Your task to perform on an android device: toggle airplane mode Image 0: 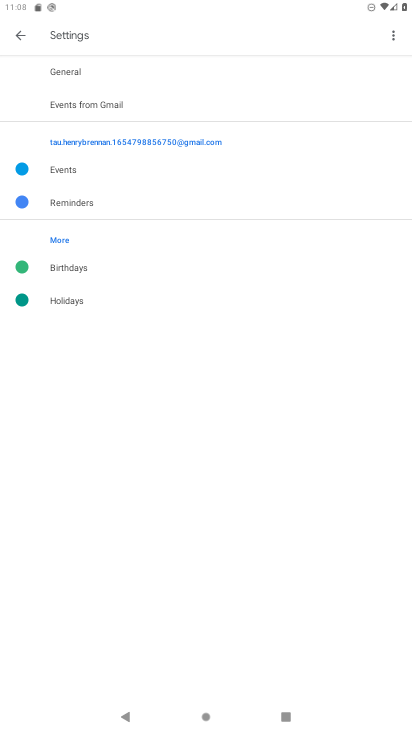
Step 0: press back button
Your task to perform on an android device: toggle airplane mode Image 1: 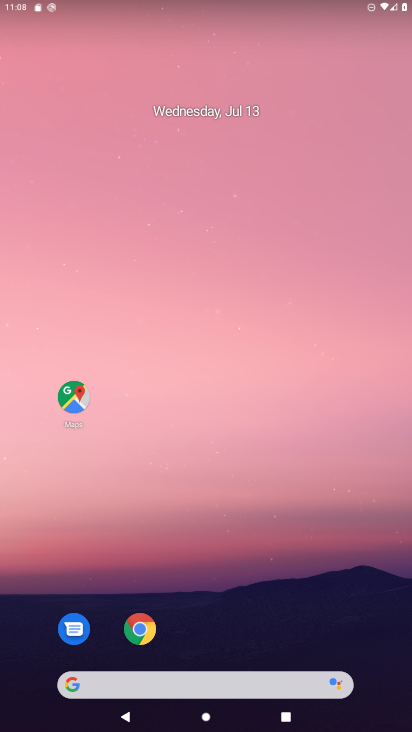
Step 1: drag from (395, 712) to (234, 41)
Your task to perform on an android device: toggle airplane mode Image 2: 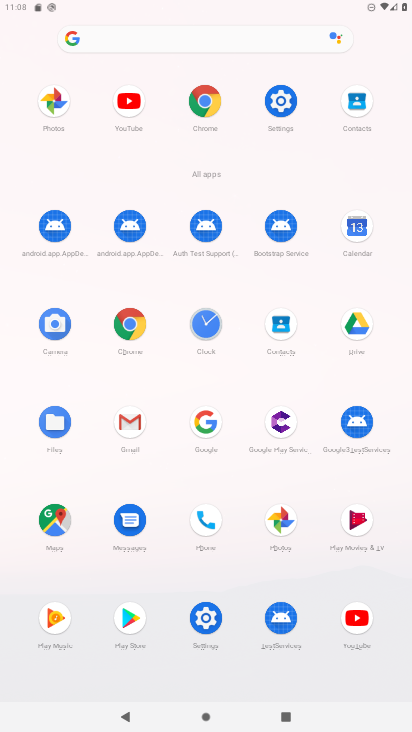
Step 2: click (280, 111)
Your task to perform on an android device: toggle airplane mode Image 3: 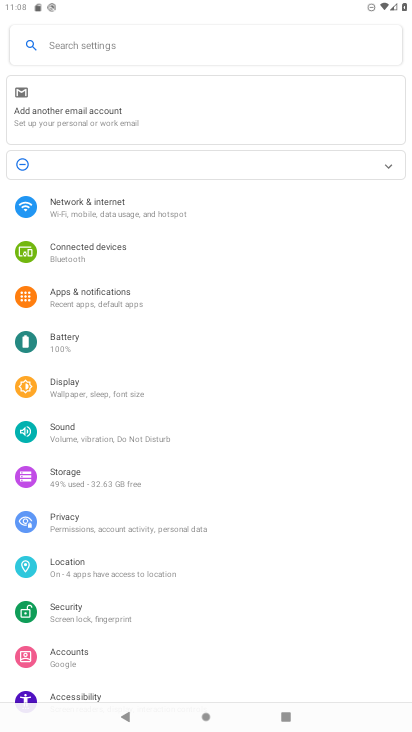
Step 3: click (85, 215)
Your task to perform on an android device: toggle airplane mode Image 4: 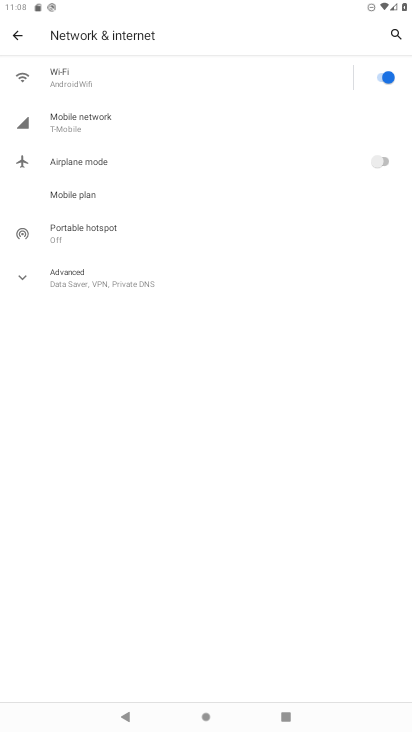
Step 4: click (382, 162)
Your task to perform on an android device: toggle airplane mode Image 5: 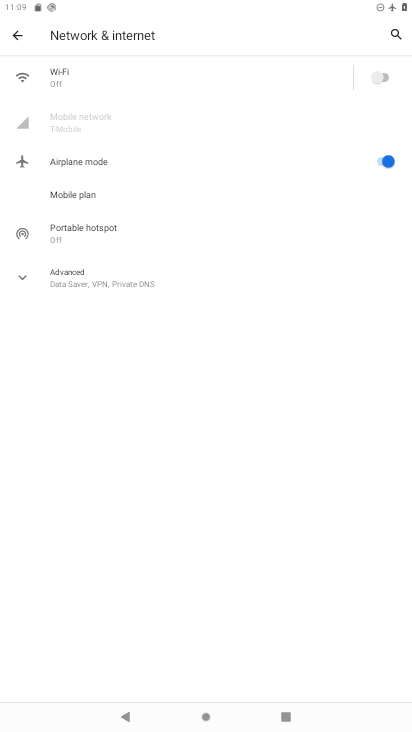
Step 5: task complete